Your task to perform on an android device: toggle notifications settings in the gmail app Image 0: 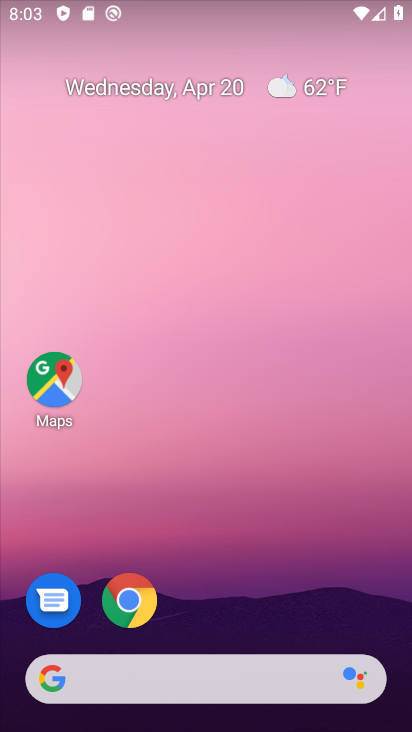
Step 0: drag from (229, 619) to (228, 163)
Your task to perform on an android device: toggle notifications settings in the gmail app Image 1: 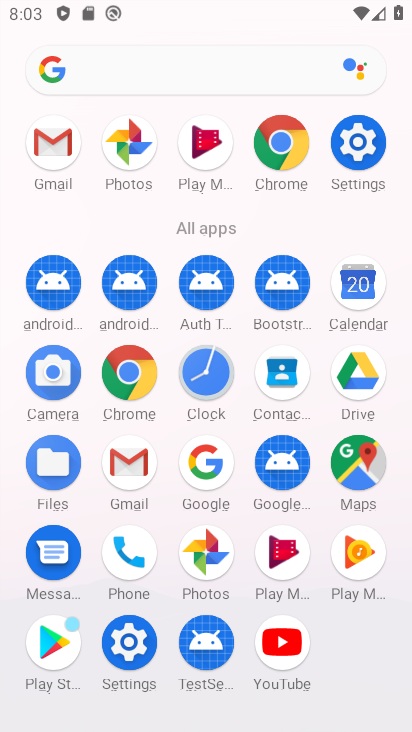
Step 1: click (54, 139)
Your task to perform on an android device: toggle notifications settings in the gmail app Image 2: 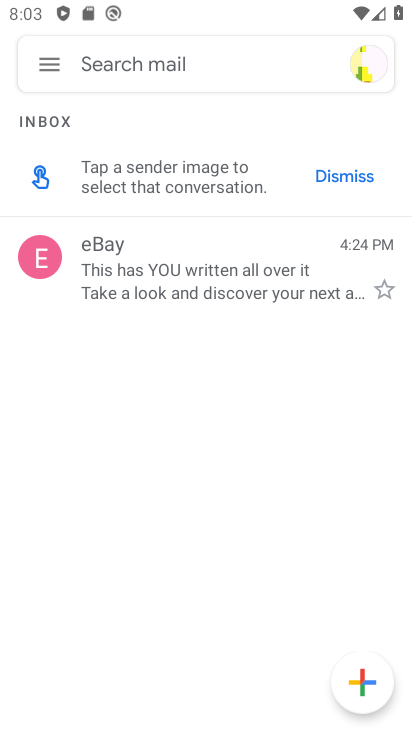
Step 2: click (52, 64)
Your task to perform on an android device: toggle notifications settings in the gmail app Image 3: 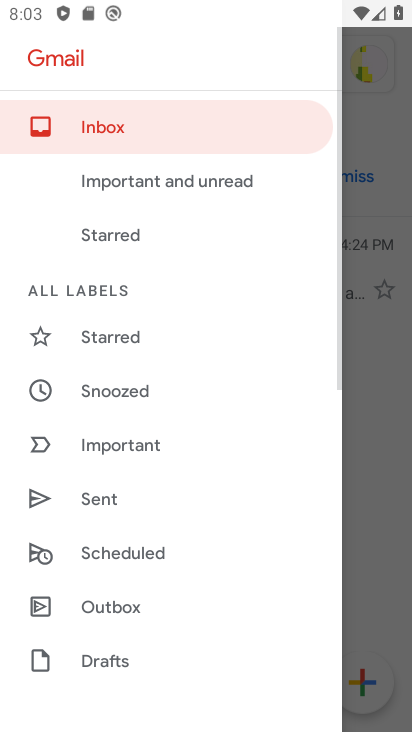
Step 3: drag from (138, 656) to (149, 267)
Your task to perform on an android device: toggle notifications settings in the gmail app Image 4: 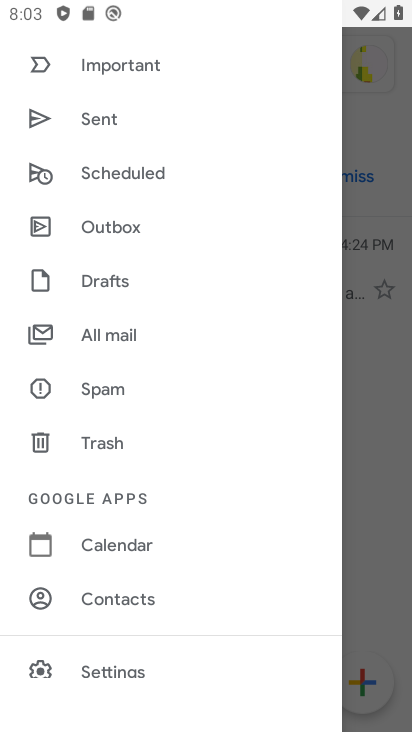
Step 4: click (118, 668)
Your task to perform on an android device: toggle notifications settings in the gmail app Image 5: 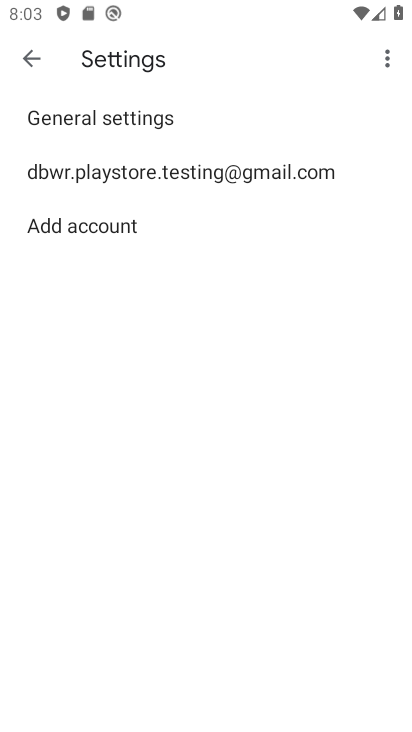
Step 5: click (194, 166)
Your task to perform on an android device: toggle notifications settings in the gmail app Image 6: 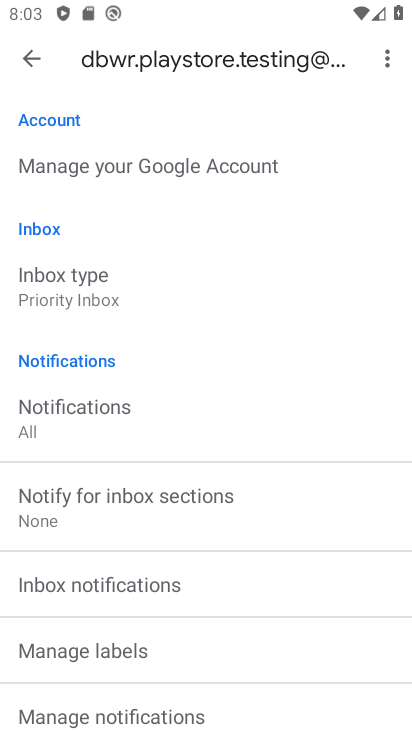
Step 6: click (74, 408)
Your task to perform on an android device: toggle notifications settings in the gmail app Image 7: 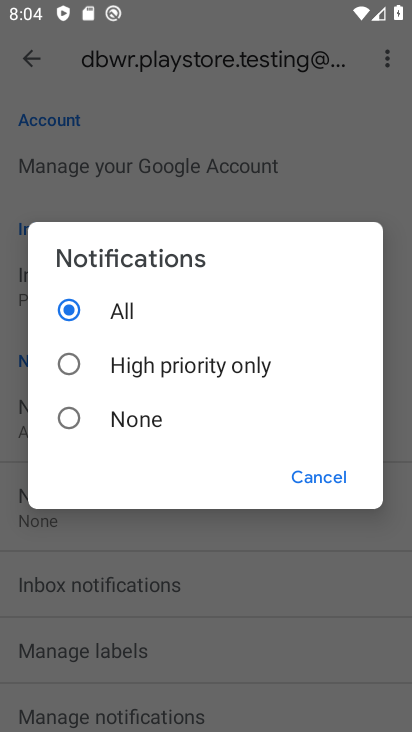
Step 7: click (65, 414)
Your task to perform on an android device: toggle notifications settings in the gmail app Image 8: 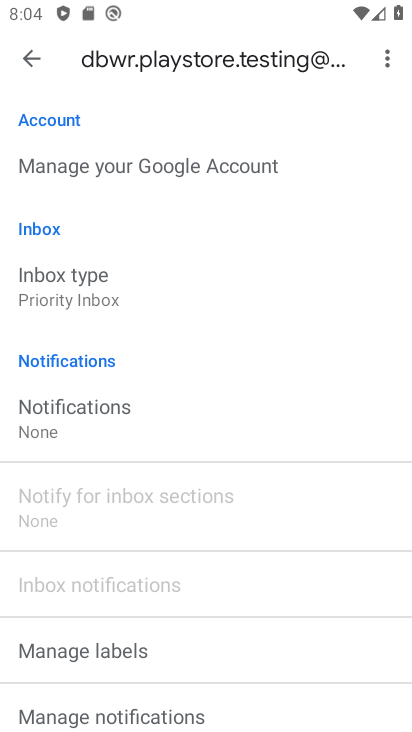
Step 8: task complete